Your task to perform on an android device: Open location settings Image 0: 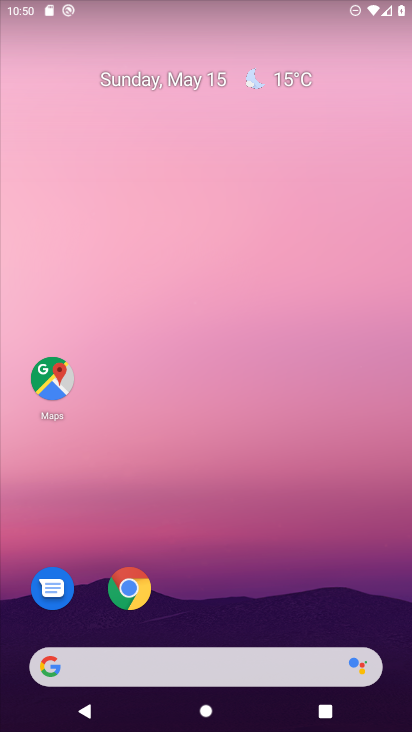
Step 0: drag from (211, 616) to (254, 20)
Your task to perform on an android device: Open location settings Image 1: 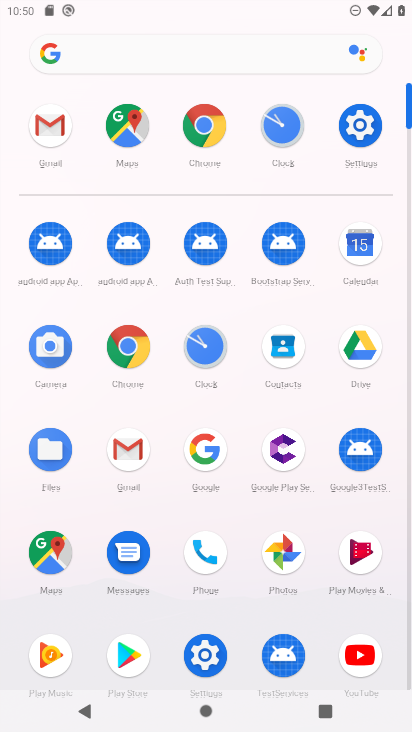
Step 1: click (211, 657)
Your task to perform on an android device: Open location settings Image 2: 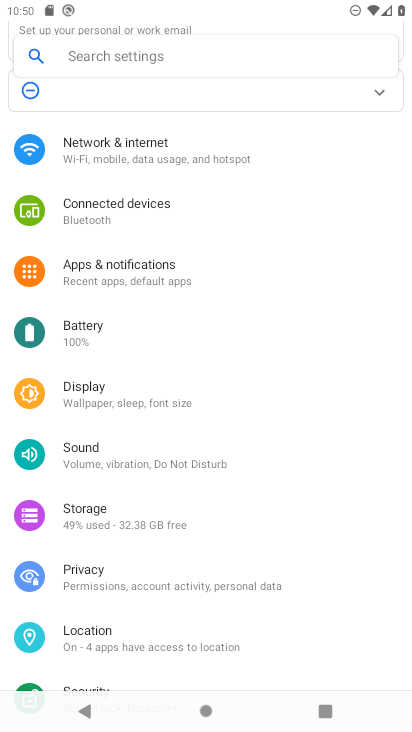
Step 2: click (141, 643)
Your task to perform on an android device: Open location settings Image 3: 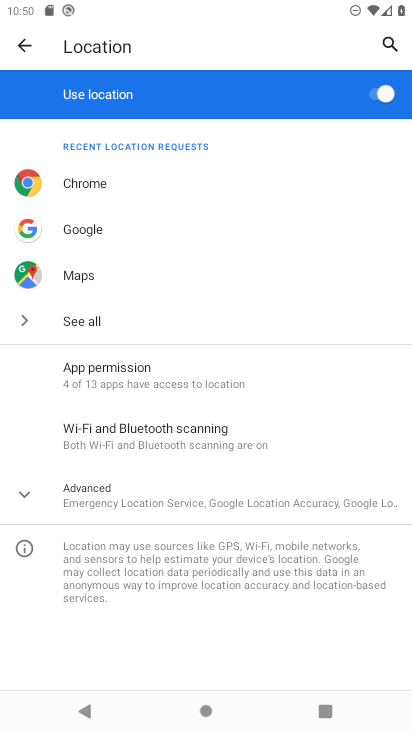
Step 3: task complete